Your task to perform on an android device: see tabs open on other devices in the chrome app Image 0: 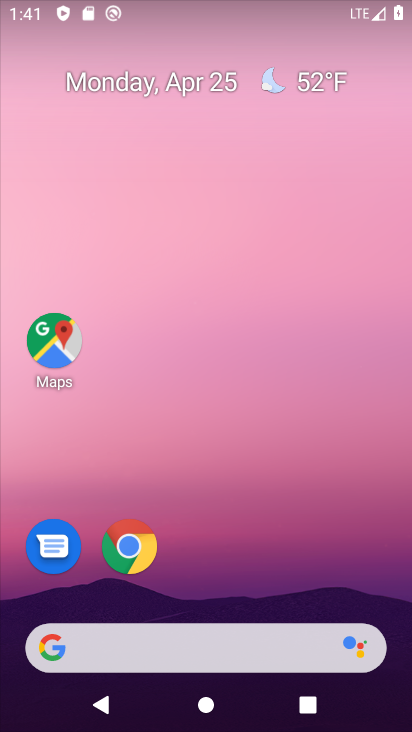
Step 0: click (206, 566)
Your task to perform on an android device: see tabs open on other devices in the chrome app Image 1: 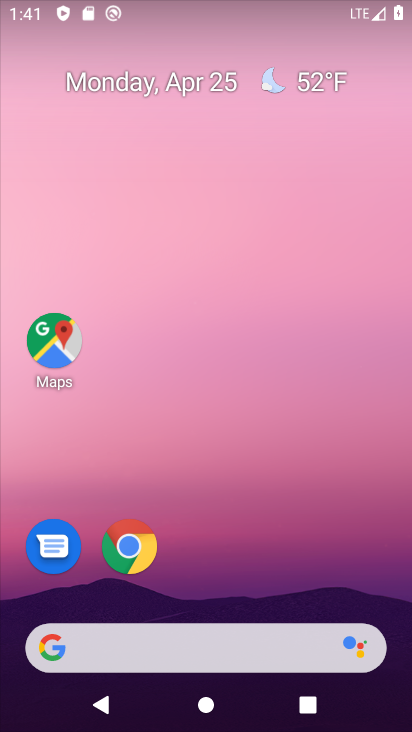
Step 1: click (180, 209)
Your task to perform on an android device: see tabs open on other devices in the chrome app Image 2: 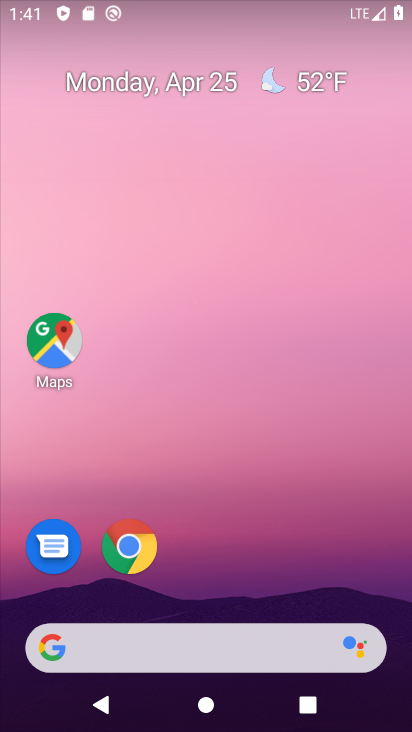
Step 2: click (127, 568)
Your task to perform on an android device: see tabs open on other devices in the chrome app Image 3: 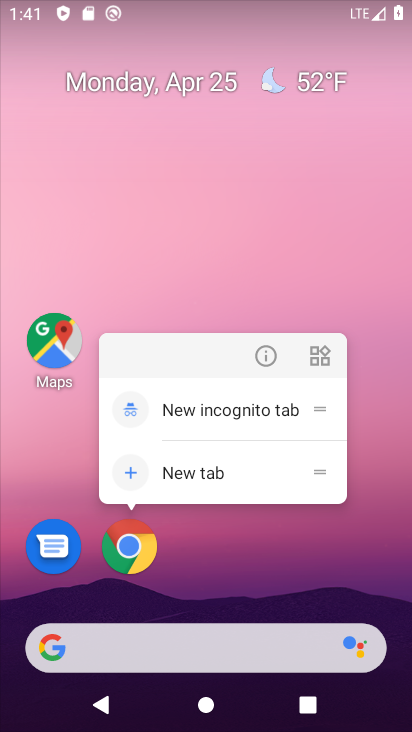
Step 3: click (128, 560)
Your task to perform on an android device: see tabs open on other devices in the chrome app Image 4: 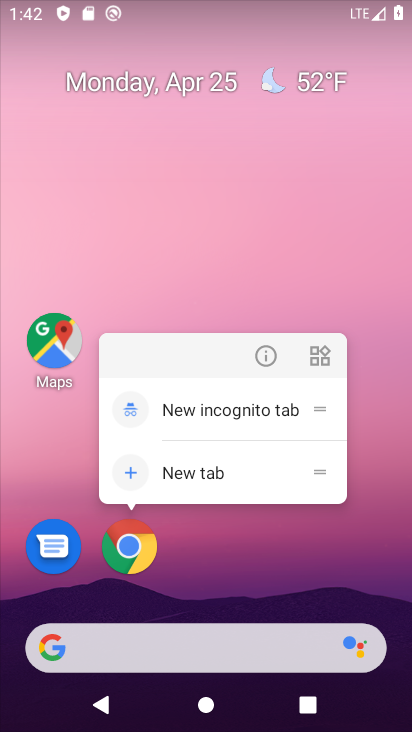
Step 4: click (128, 560)
Your task to perform on an android device: see tabs open on other devices in the chrome app Image 5: 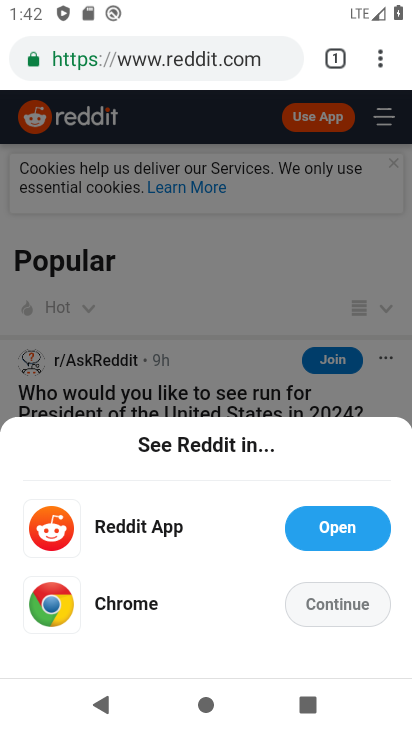
Step 5: task complete